Your task to perform on an android device: open the mobile data screen to see how much data has been used Image 0: 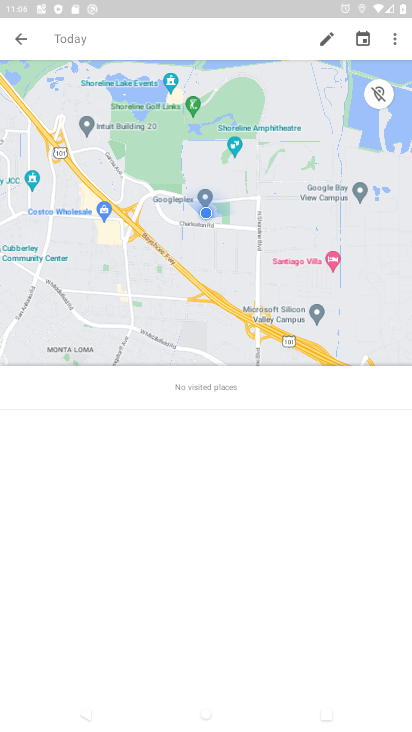
Step 0: press home button
Your task to perform on an android device: open the mobile data screen to see how much data has been used Image 1: 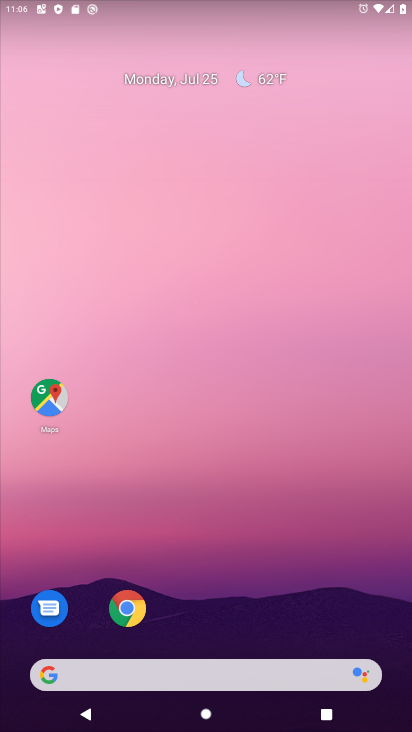
Step 1: drag from (211, 631) to (240, 88)
Your task to perform on an android device: open the mobile data screen to see how much data has been used Image 2: 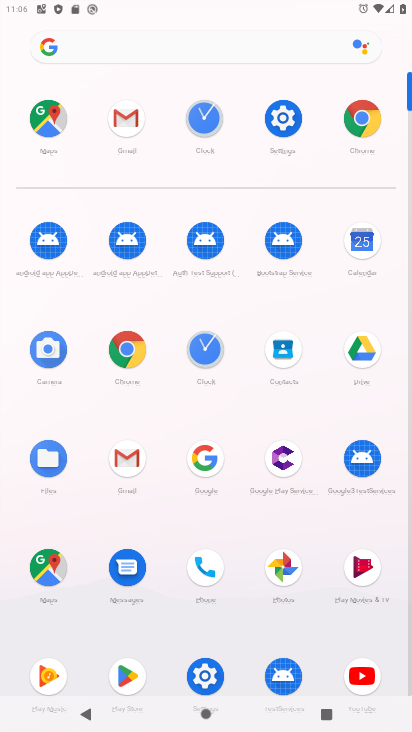
Step 2: click (196, 671)
Your task to perform on an android device: open the mobile data screen to see how much data has been used Image 3: 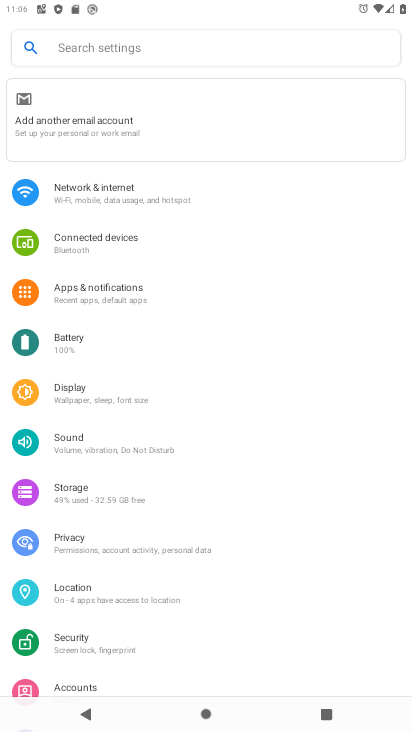
Step 3: click (143, 211)
Your task to perform on an android device: open the mobile data screen to see how much data has been used Image 4: 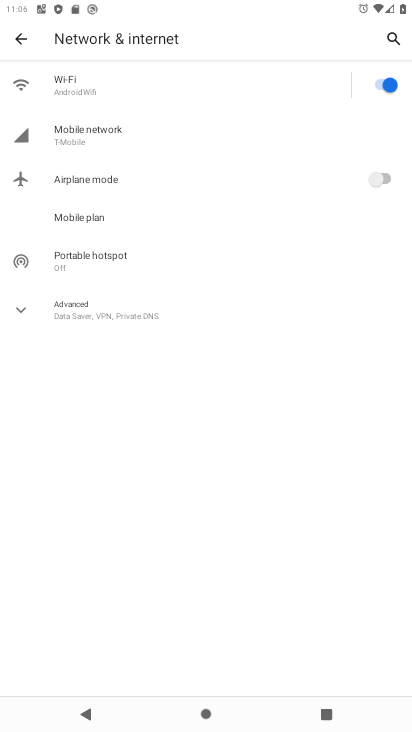
Step 4: click (97, 133)
Your task to perform on an android device: open the mobile data screen to see how much data has been used Image 5: 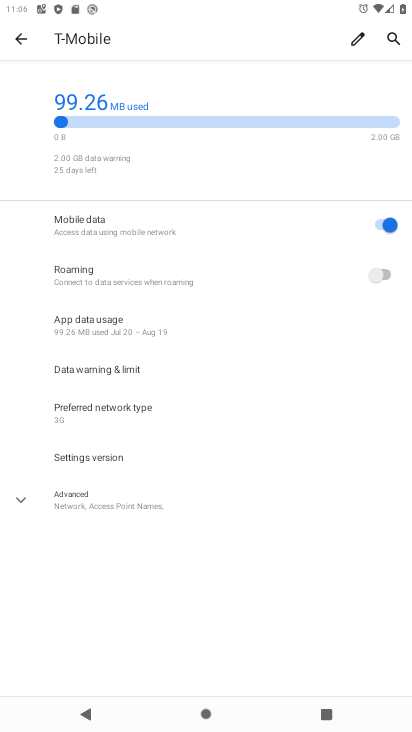
Step 5: click (167, 330)
Your task to perform on an android device: open the mobile data screen to see how much data has been used Image 6: 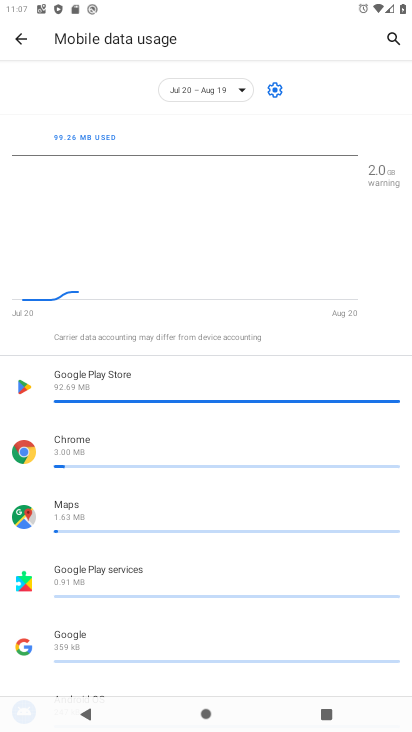
Step 6: task complete